Your task to perform on an android device: Open privacy settings Image 0: 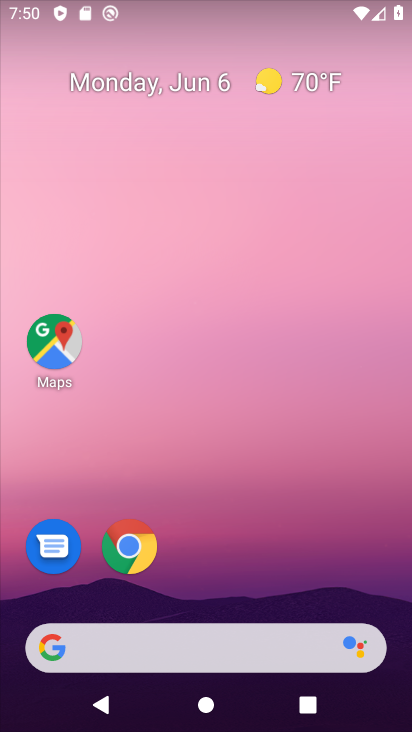
Step 0: drag from (199, 586) to (368, 34)
Your task to perform on an android device: Open privacy settings Image 1: 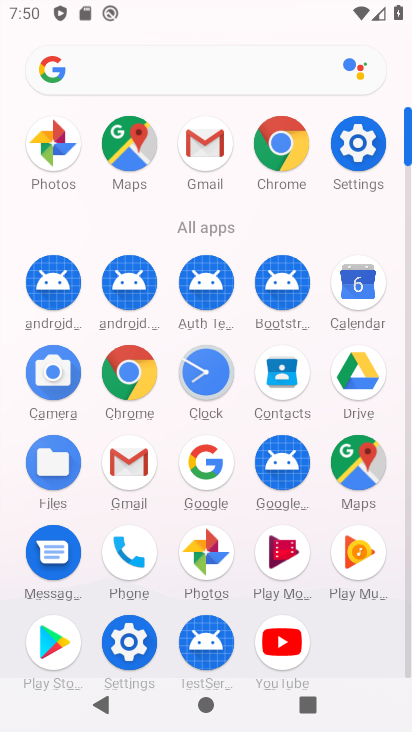
Step 1: click (359, 145)
Your task to perform on an android device: Open privacy settings Image 2: 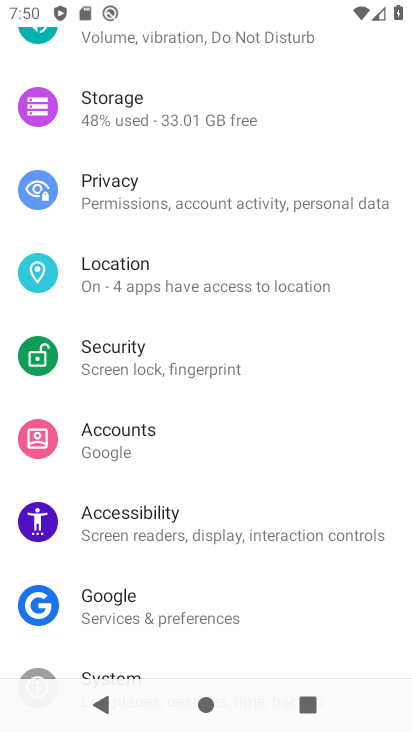
Step 2: click (179, 185)
Your task to perform on an android device: Open privacy settings Image 3: 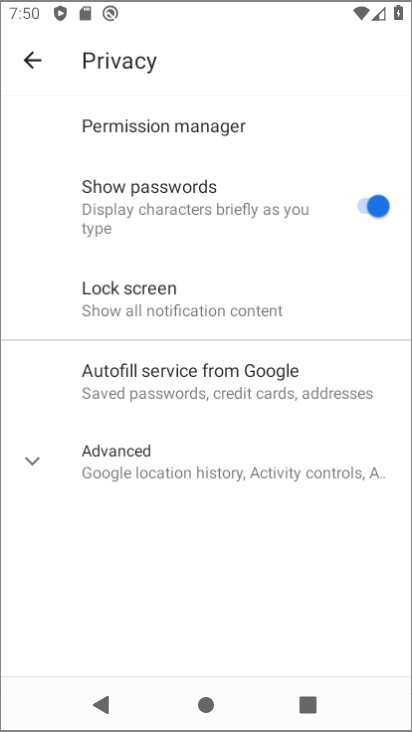
Step 3: task complete